Your task to perform on an android device: create a new album in the google photos Image 0: 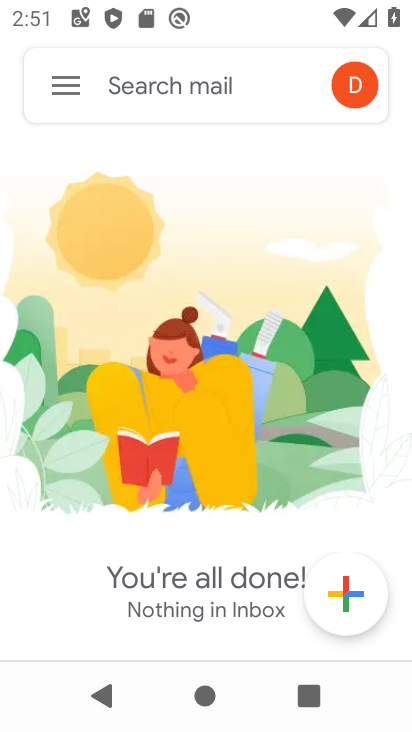
Step 0: press home button
Your task to perform on an android device: create a new album in the google photos Image 1: 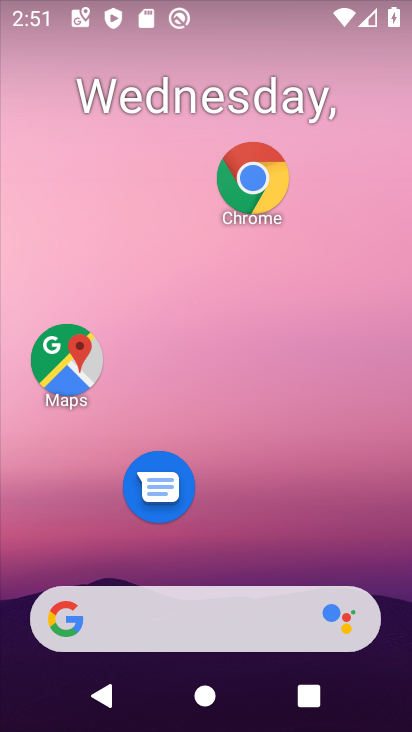
Step 1: drag from (245, 540) to (295, 148)
Your task to perform on an android device: create a new album in the google photos Image 2: 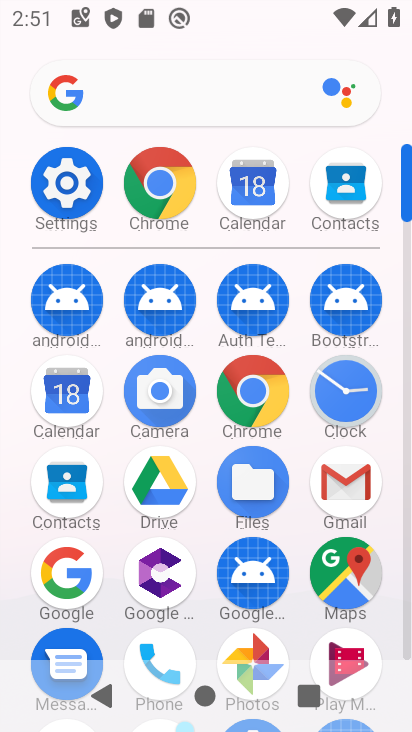
Step 2: click (242, 644)
Your task to perform on an android device: create a new album in the google photos Image 3: 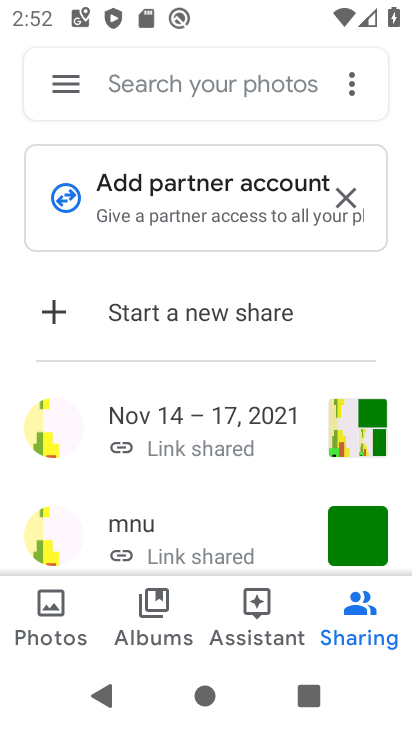
Step 3: click (170, 618)
Your task to perform on an android device: create a new album in the google photos Image 4: 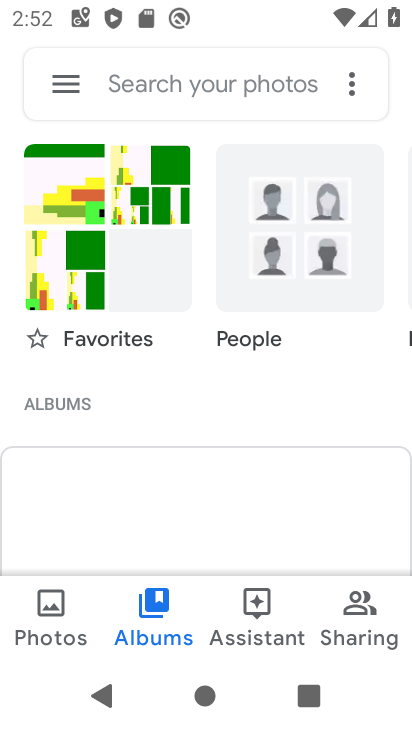
Step 4: drag from (184, 512) to (247, 210)
Your task to perform on an android device: create a new album in the google photos Image 5: 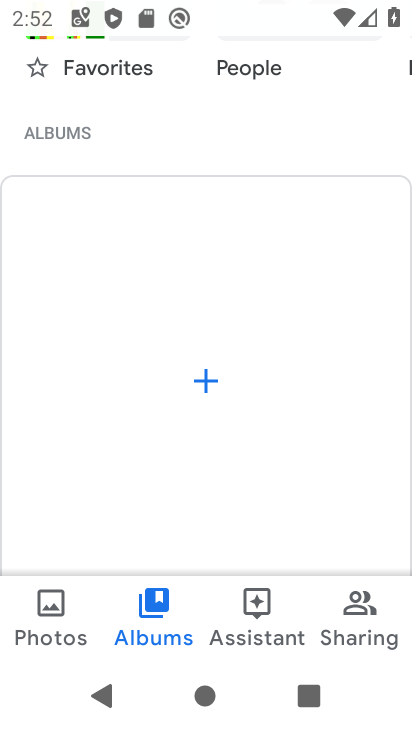
Step 5: click (209, 387)
Your task to perform on an android device: create a new album in the google photos Image 6: 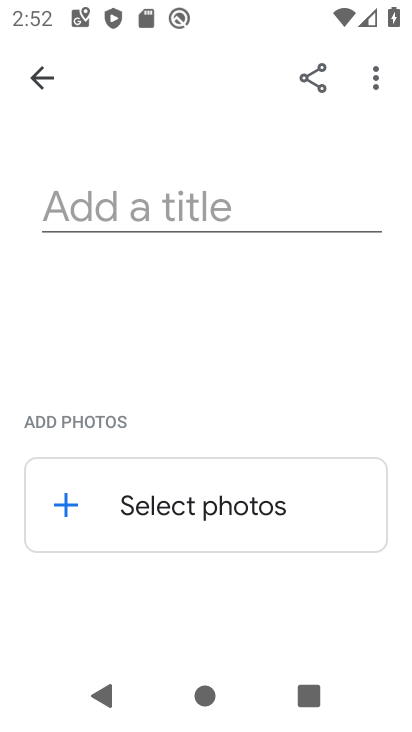
Step 6: click (190, 214)
Your task to perform on an android device: create a new album in the google photos Image 7: 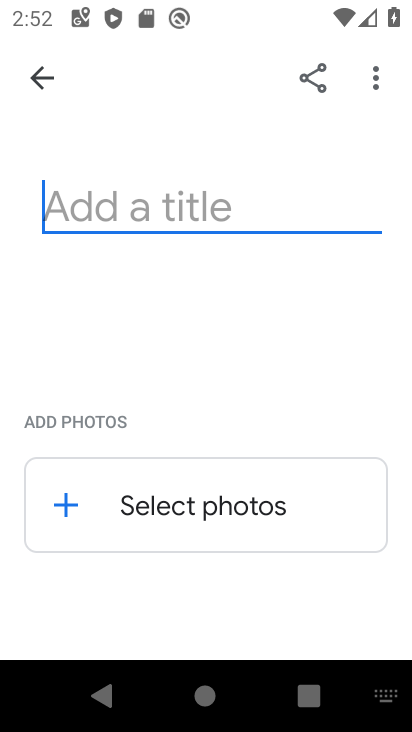
Step 7: type "zxcvbnm,"
Your task to perform on an android device: create a new album in the google photos Image 8: 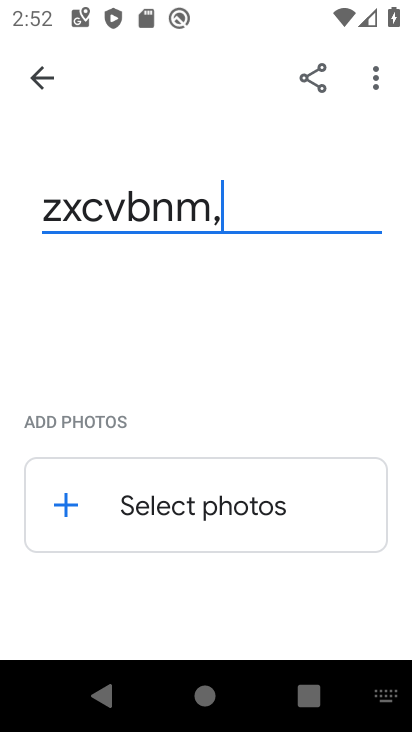
Step 8: click (75, 511)
Your task to perform on an android device: create a new album in the google photos Image 9: 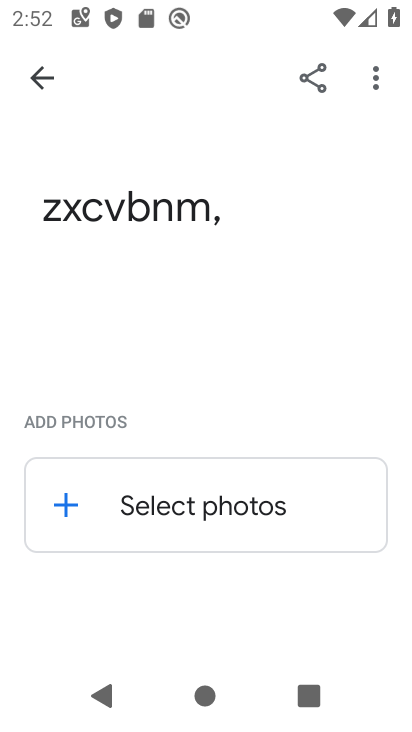
Step 9: click (69, 504)
Your task to perform on an android device: create a new album in the google photos Image 10: 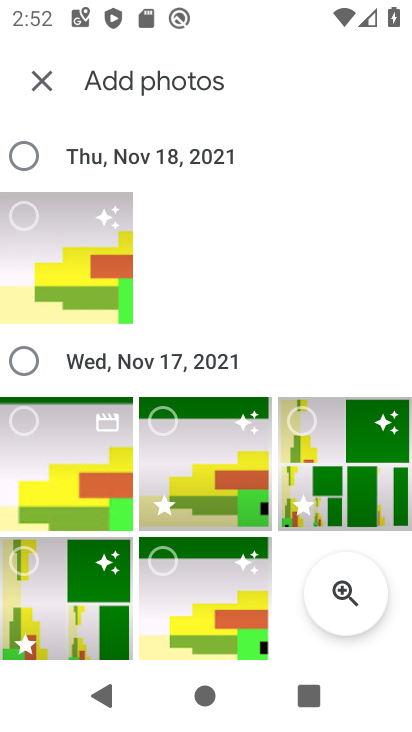
Step 10: click (87, 552)
Your task to perform on an android device: create a new album in the google photos Image 11: 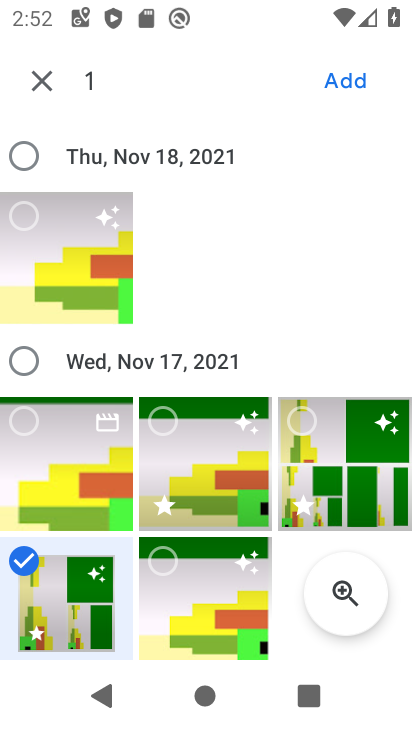
Step 11: click (342, 75)
Your task to perform on an android device: create a new album in the google photos Image 12: 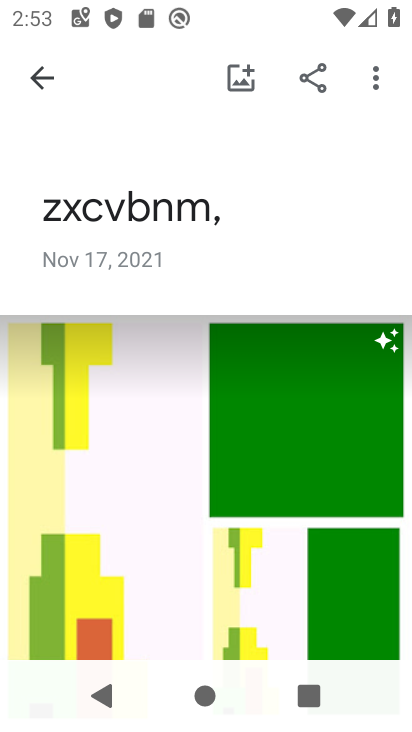
Step 12: task complete